Your task to perform on an android device: star an email in the gmail app Image 0: 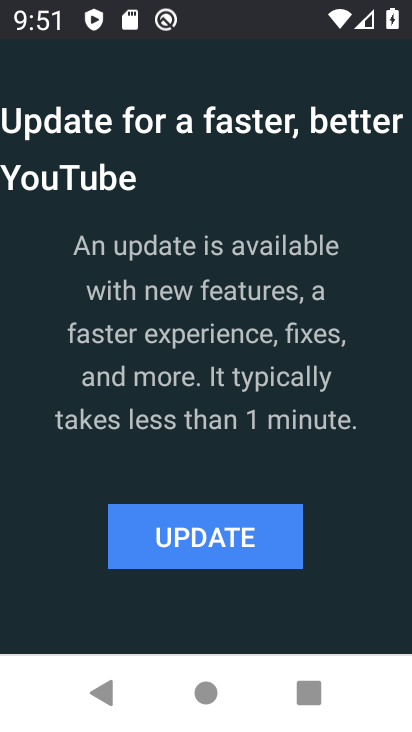
Step 0: press home button
Your task to perform on an android device: star an email in the gmail app Image 1: 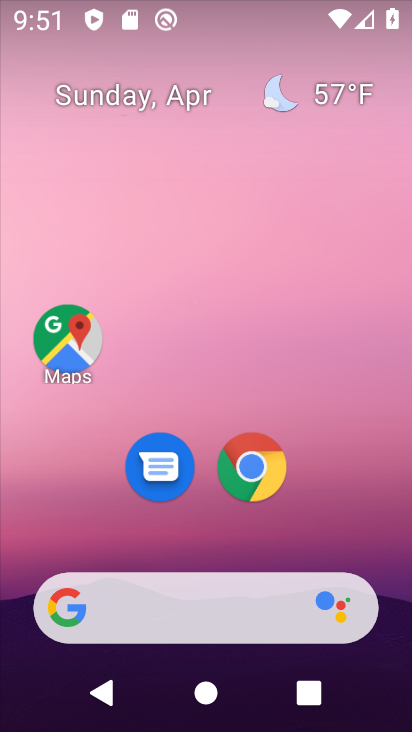
Step 1: drag from (332, 417) to (241, 18)
Your task to perform on an android device: star an email in the gmail app Image 2: 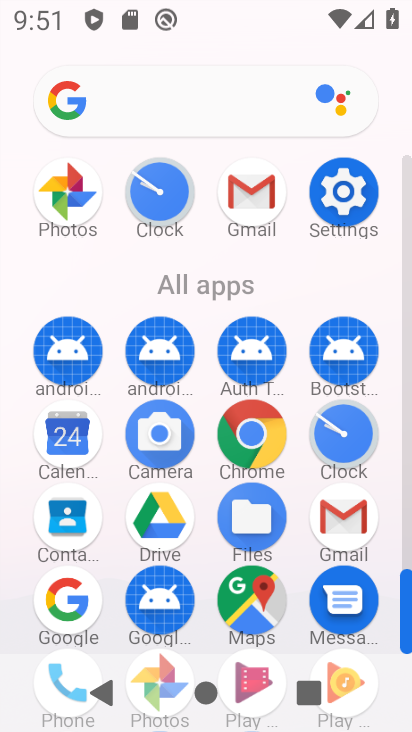
Step 2: click (345, 501)
Your task to perform on an android device: star an email in the gmail app Image 3: 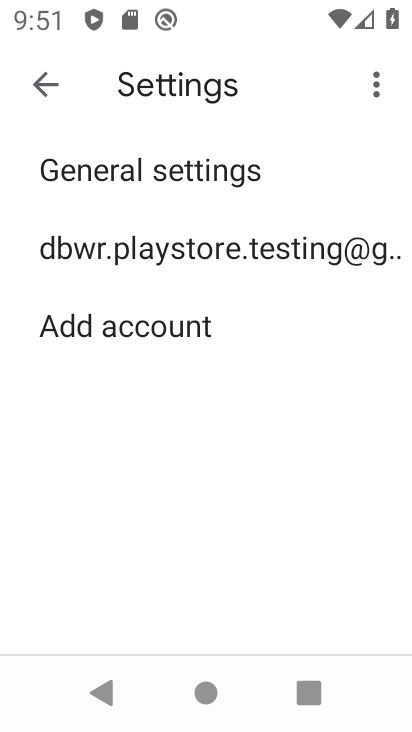
Step 3: click (153, 247)
Your task to perform on an android device: star an email in the gmail app Image 4: 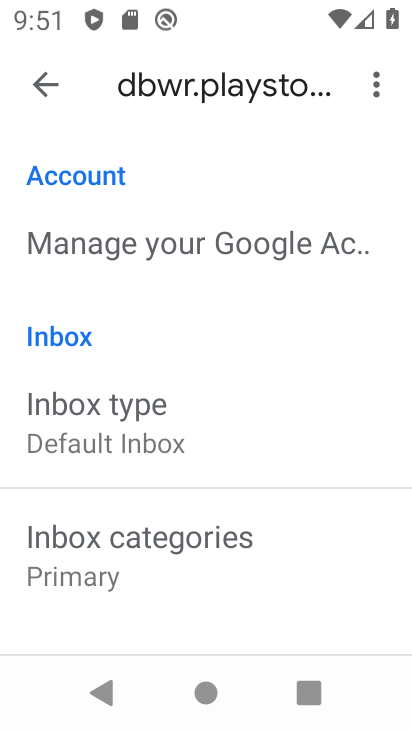
Step 4: drag from (222, 522) to (150, 115)
Your task to perform on an android device: star an email in the gmail app Image 5: 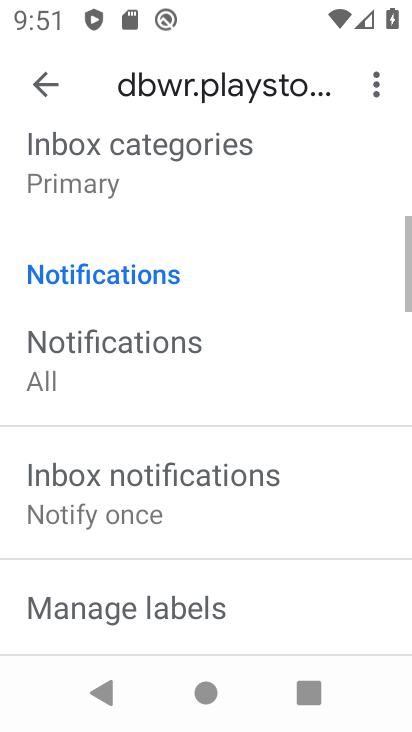
Step 5: click (55, 90)
Your task to perform on an android device: star an email in the gmail app Image 6: 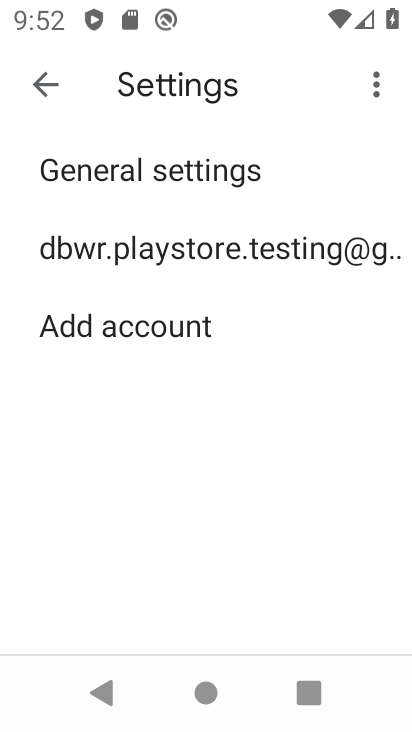
Step 6: click (50, 93)
Your task to perform on an android device: star an email in the gmail app Image 7: 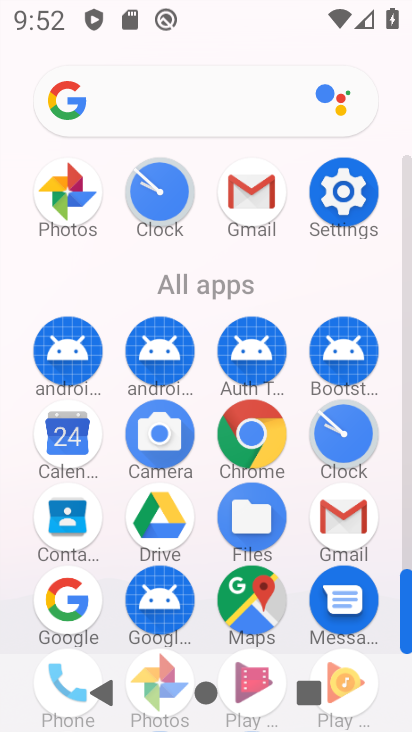
Step 7: click (244, 176)
Your task to perform on an android device: star an email in the gmail app Image 8: 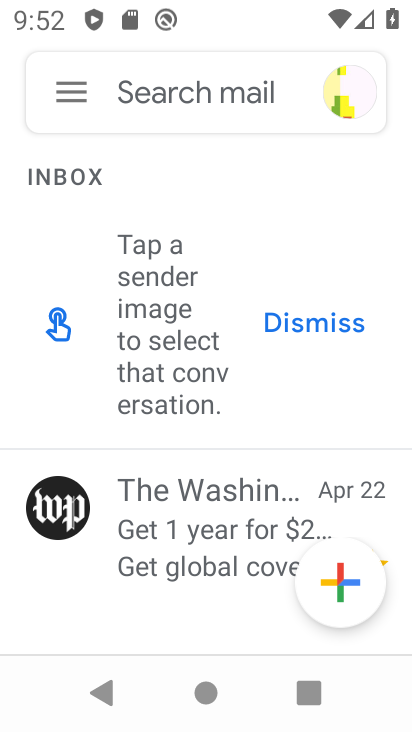
Step 8: drag from (220, 499) to (139, 93)
Your task to perform on an android device: star an email in the gmail app Image 9: 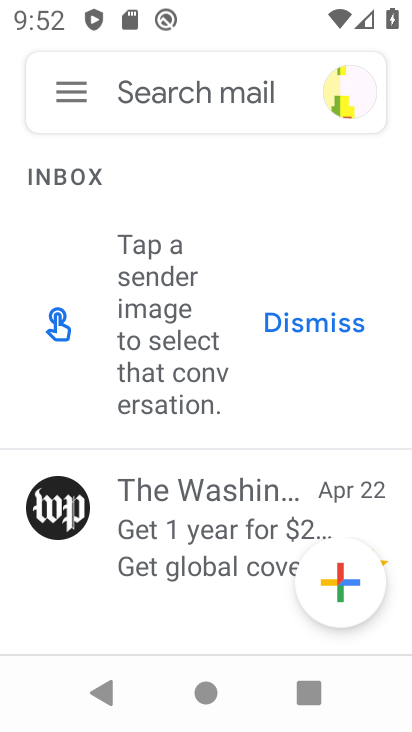
Step 9: click (69, 80)
Your task to perform on an android device: star an email in the gmail app Image 10: 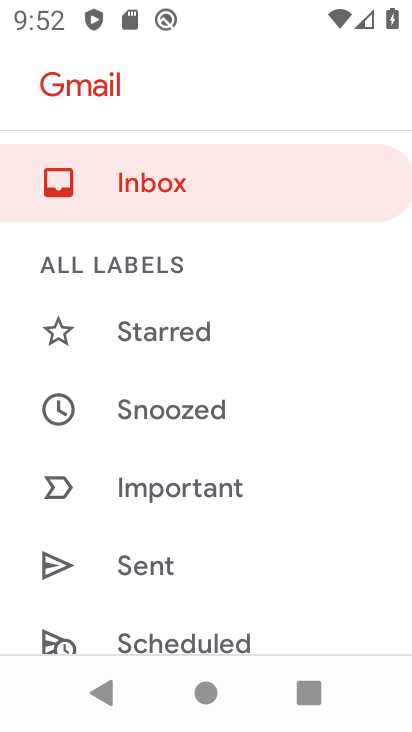
Step 10: drag from (185, 649) to (143, 78)
Your task to perform on an android device: star an email in the gmail app Image 11: 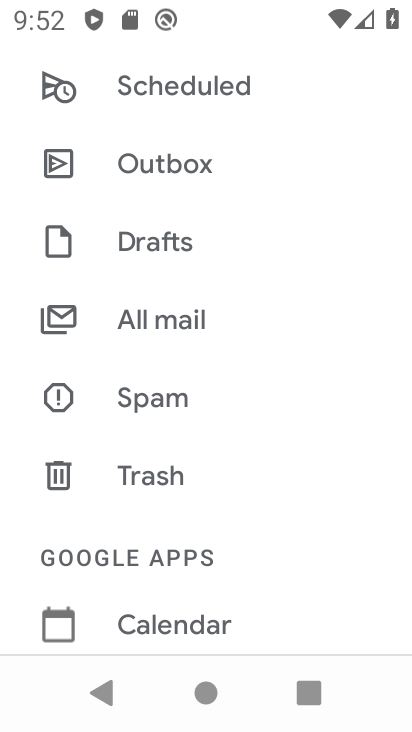
Step 11: click (181, 317)
Your task to perform on an android device: star an email in the gmail app Image 12: 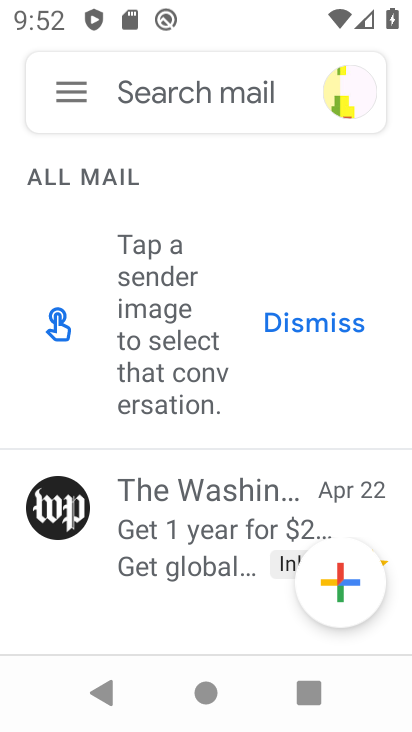
Step 12: drag from (231, 547) to (183, 92)
Your task to perform on an android device: star an email in the gmail app Image 13: 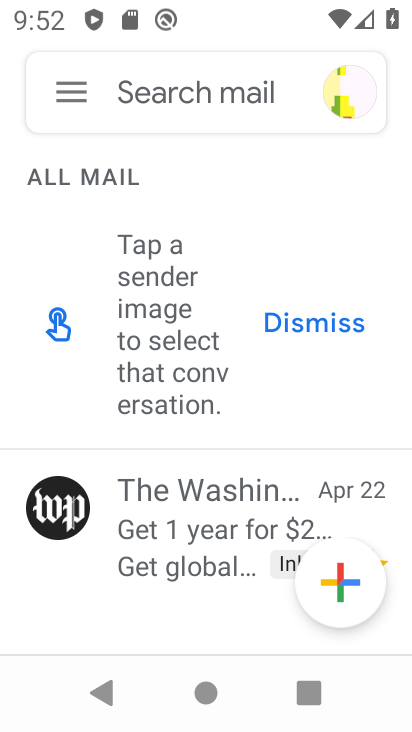
Step 13: drag from (289, 484) to (290, 335)
Your task to perform on an android device: star an email in the gmail app Image 14: 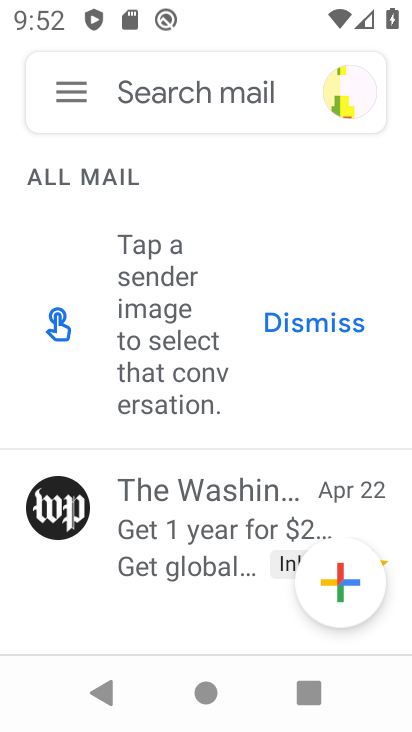
Step 14: click (196, 513)
Your task to perform on an android device: star an email in the gmail app Image 15: 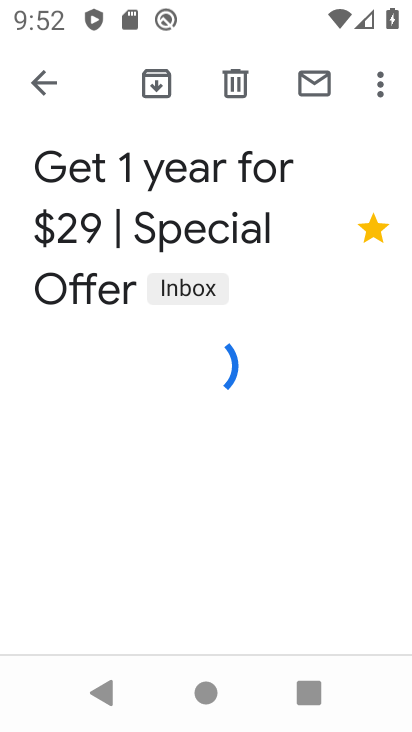
Step 15: click (376, 237)
Your task to perform on an android device: star an email in the gmail app Image 16: 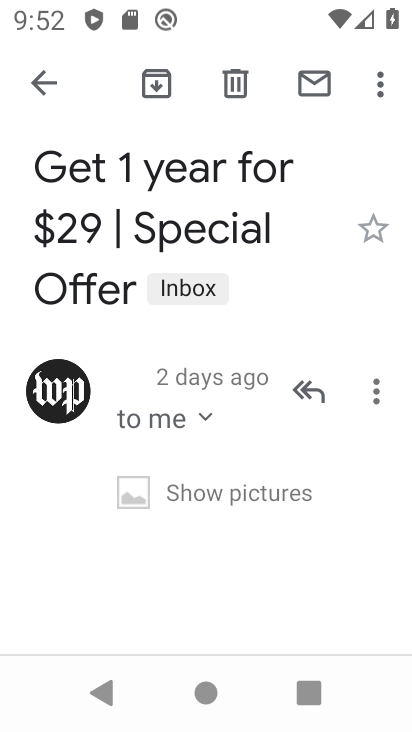
Step 16: click (375, 235)
Your task to perform on an android device: star an email in the gmail app Image 17: 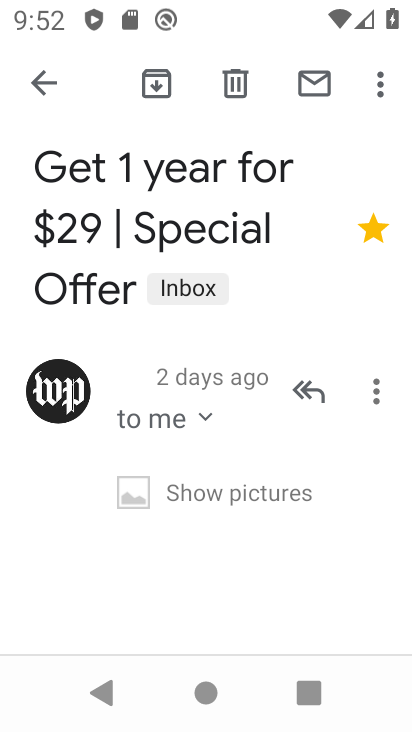
Step 17: task complete